Your task to perform on an android device: change your default location settings in chrome Image 0: 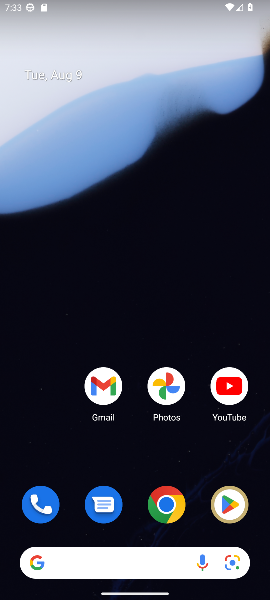
Step 0: drag from (108, 446) to (103, 0)
Your task to perform on an android device: change your default location settings in chrome Image 1: 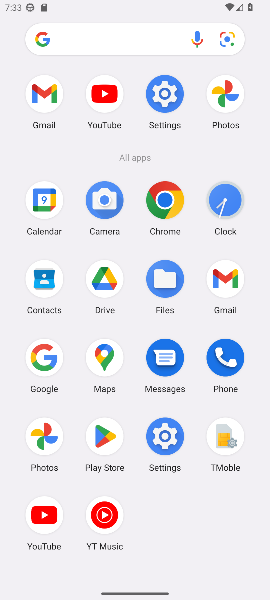
Step 1: click (168, 191)
Your task to perform on an android device: change your default location settings in chrome Image 2: 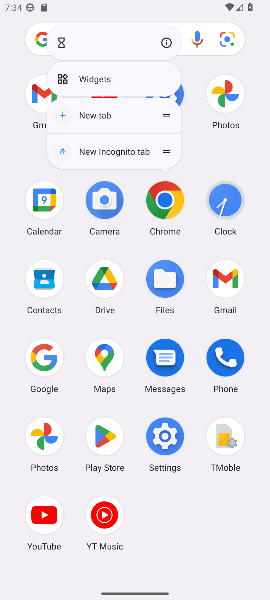
Step 2: click (169, 44)
Your task to perform on an android device: change your default location settings in chrome Image 3: 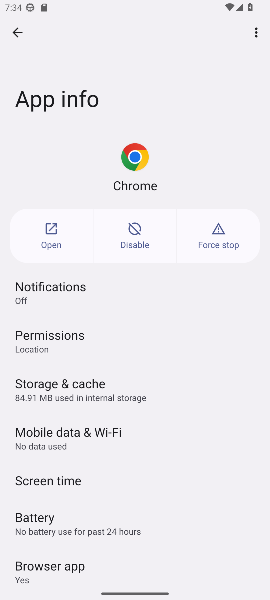
Step 3: click (85, 340)
Your task to perform on an android device: change your default location settings in chrome Image 4: 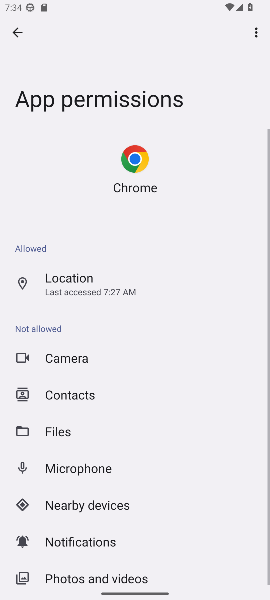
Step 4: click (61, 302)
Your task to perform on an android device: change your default location settings in chrome Image 5: 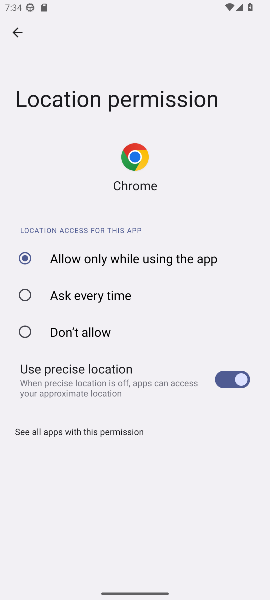
Step 5: click (89, 331)
Your task to perform on an android device: change your default location settings in chrome Image 6: 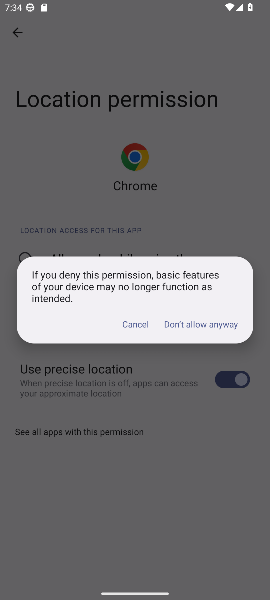
Step 6: click (197, 324)
Your task to perform on an android device: change your default location settings in chrome Image 7: 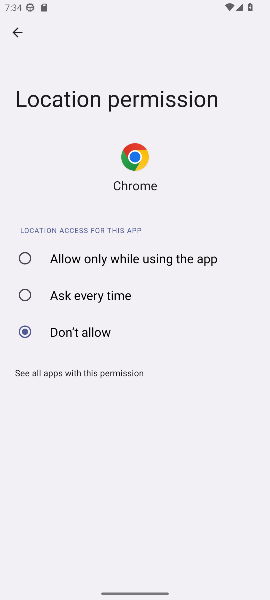
Step 7: task complete